Your task to perform on an android device: change notifications settings Image 0: 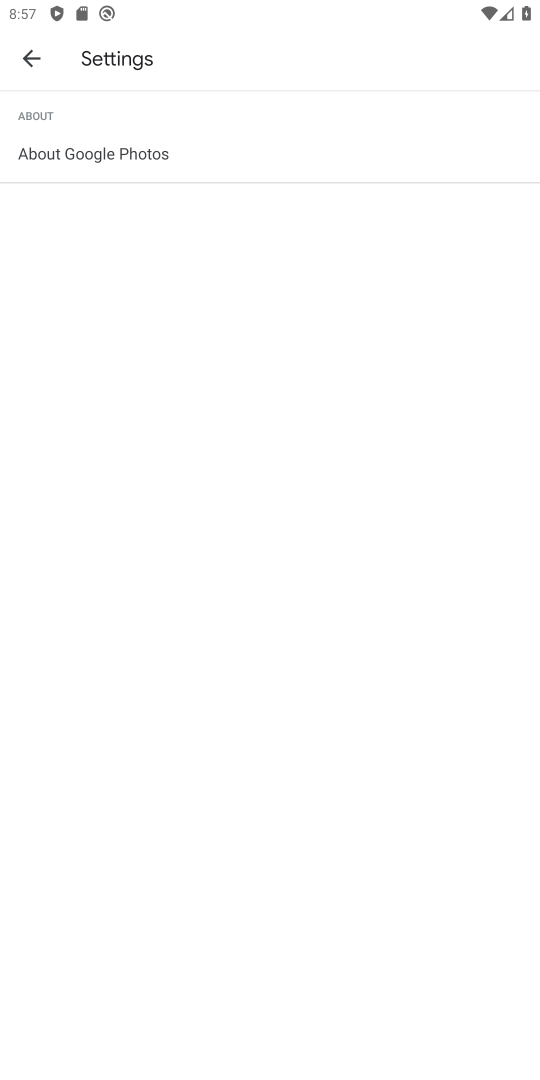
Step 0: press home button
Your task to perform on an android device: change notifications settings Image 1: 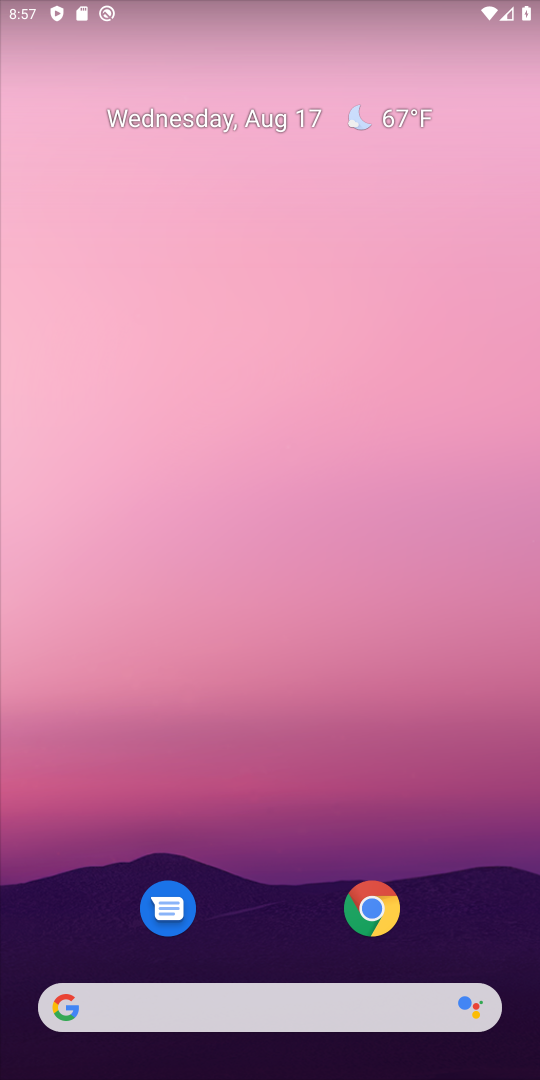
Step 1: drag from (240, 910) to (278, 105)
Your task to perform on an android device: change notifications settings Image 2: 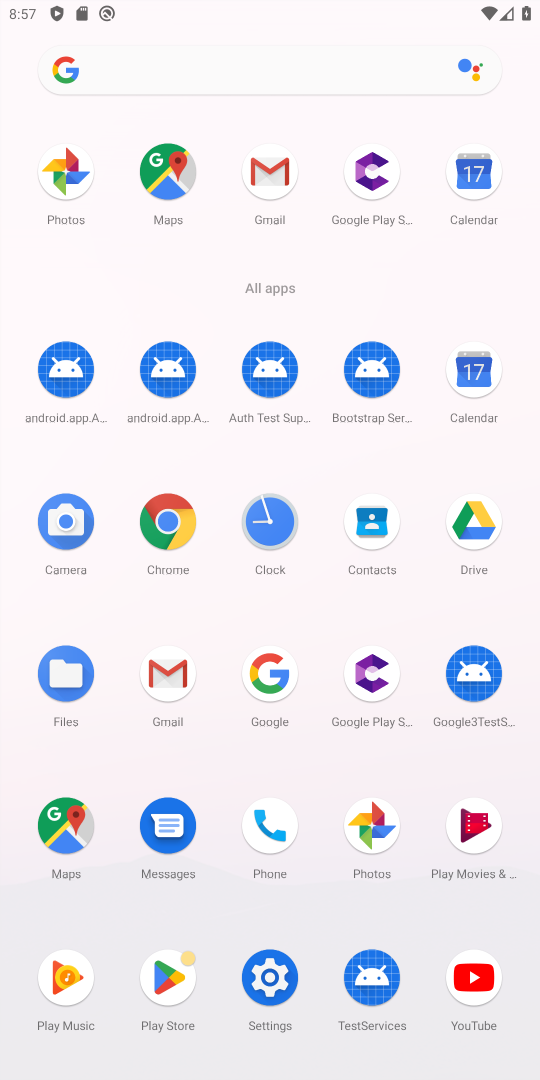
Step 2: click (275, 968)
Your task to perform on an android device: change notifications settings Image 3: 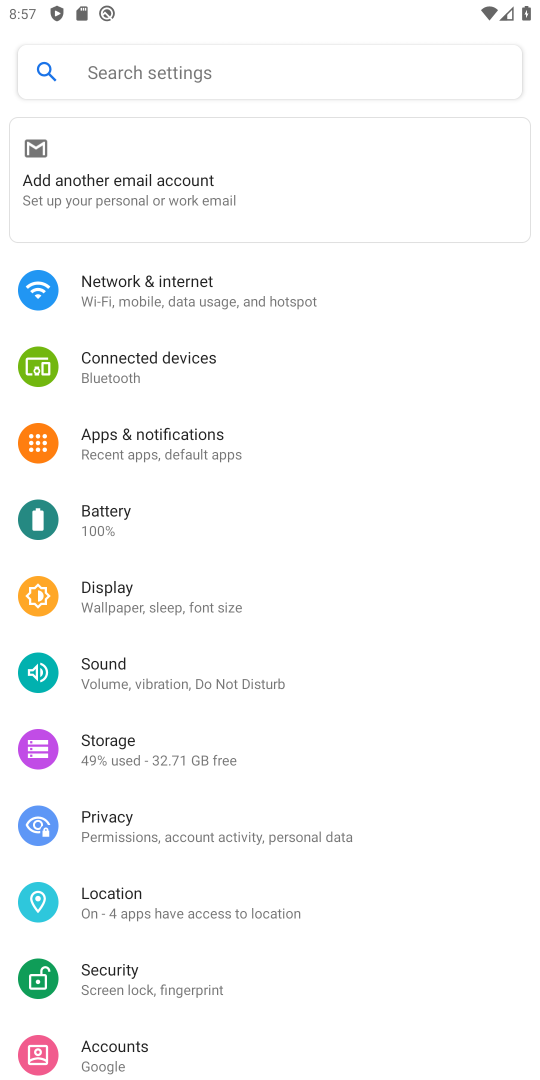
Step 3: click (186, 436)
Your task to perform on an android device: change notifications settings Image 4: 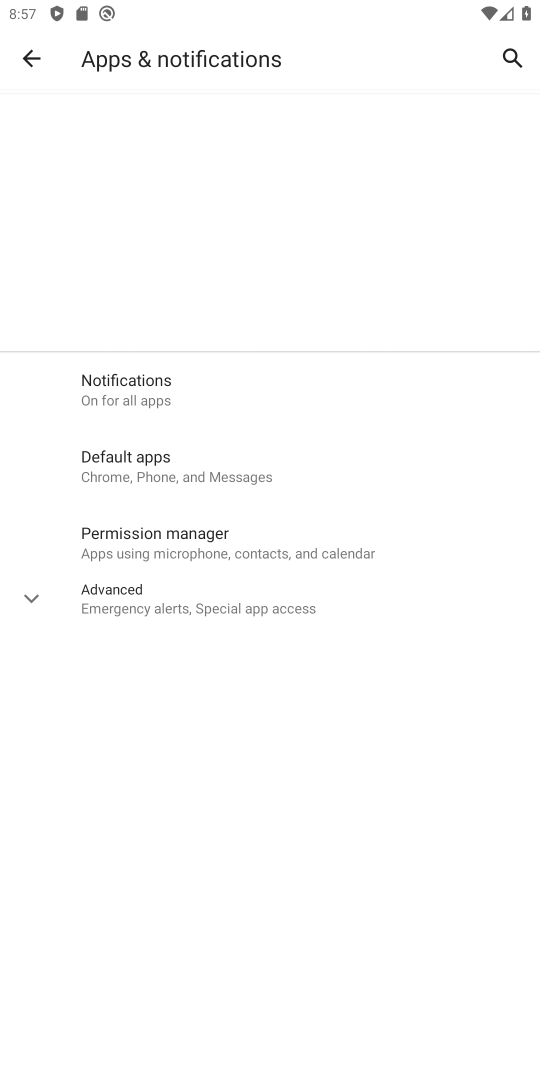
Step 4: click (100, 384)
Your task to perform on an android device: change notifications settings Image 5: 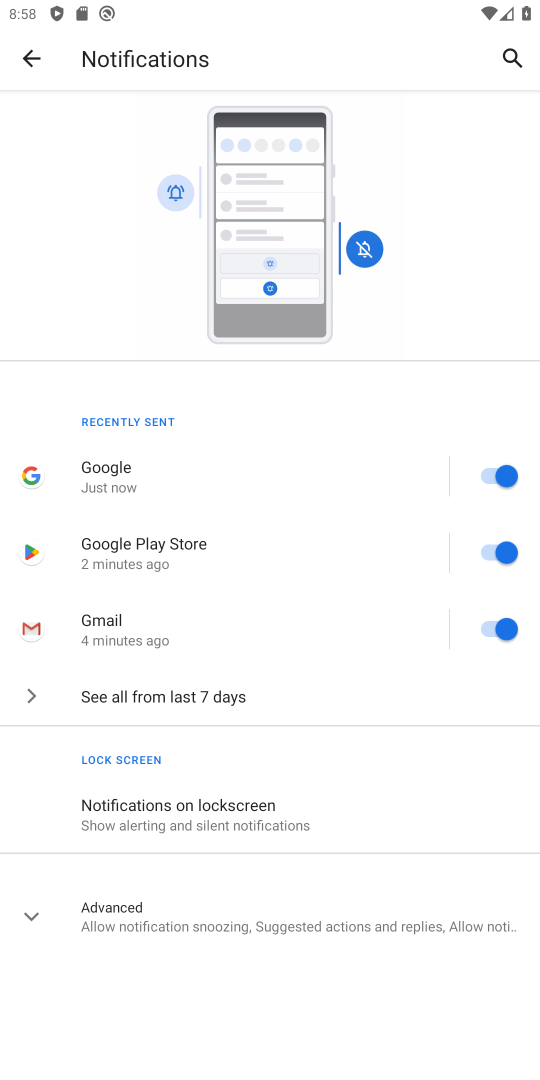
Step 5: click (164, 538)
Your task to perform on an android device: change notifications settings Image 6: 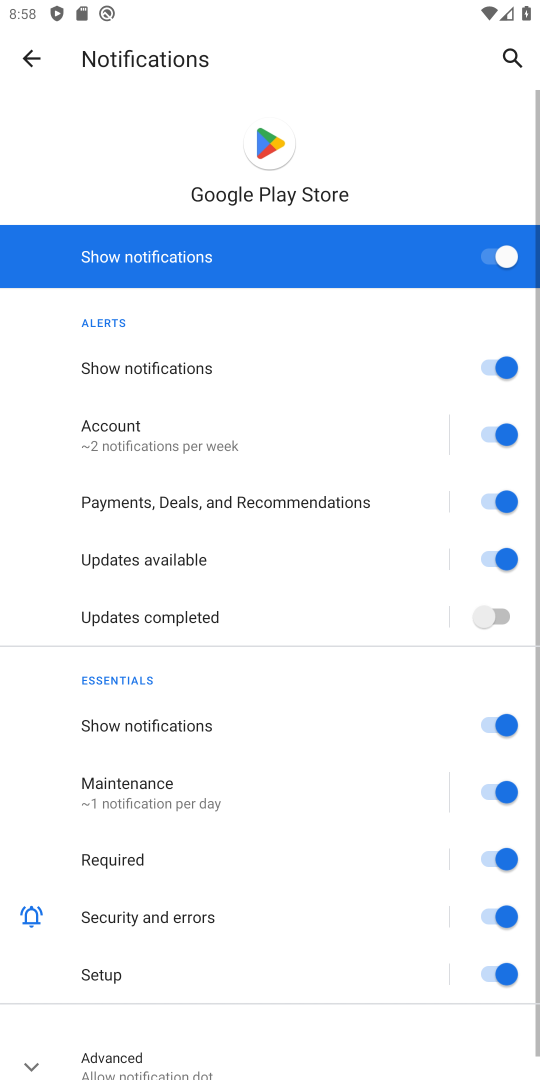
Step 6: click (278, 262)
Your task to perform on an android device: change notifications settings Image 7: 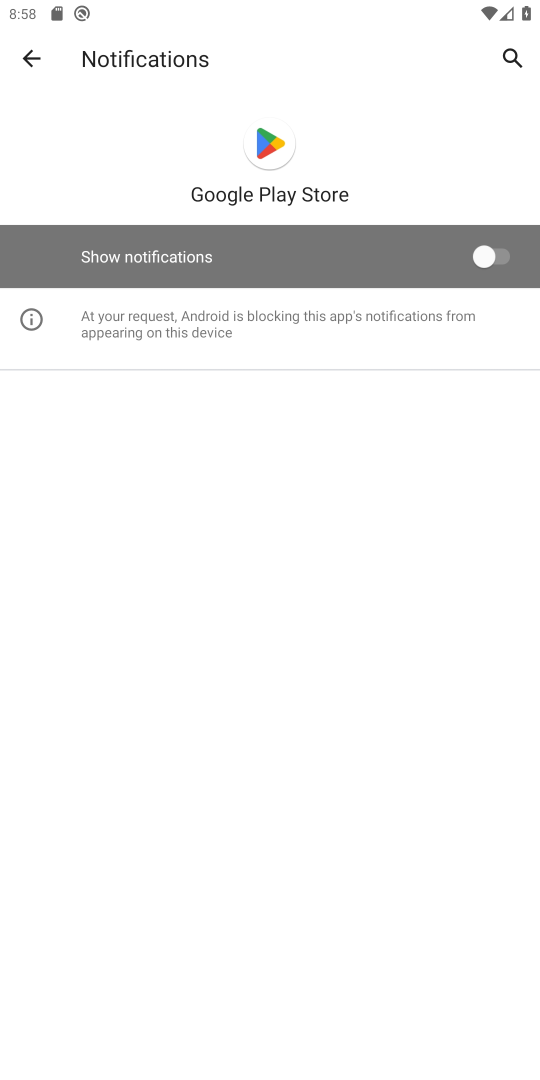
Step 7: task complete